Your task to perform on an android device: View the shopping cart on newegg.com. Add alienware area 51 to the cart on newegg.com Image 0: 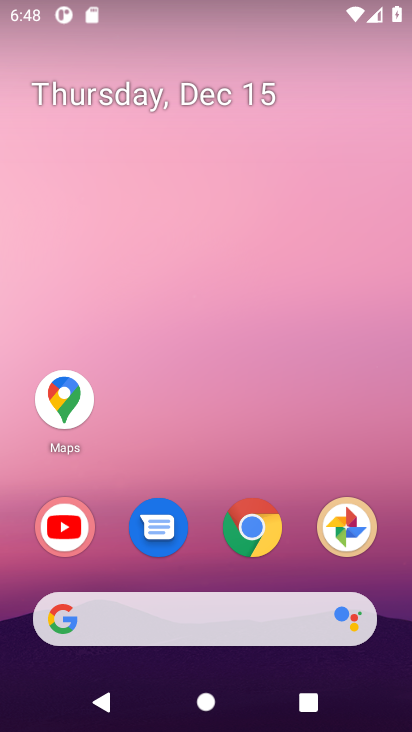
Step 0: click (233, 626)
Your task to perform on an android device: View the shopping cart on newegg.com. Add alienware area 51 to the cart on newegg.com Image 1: 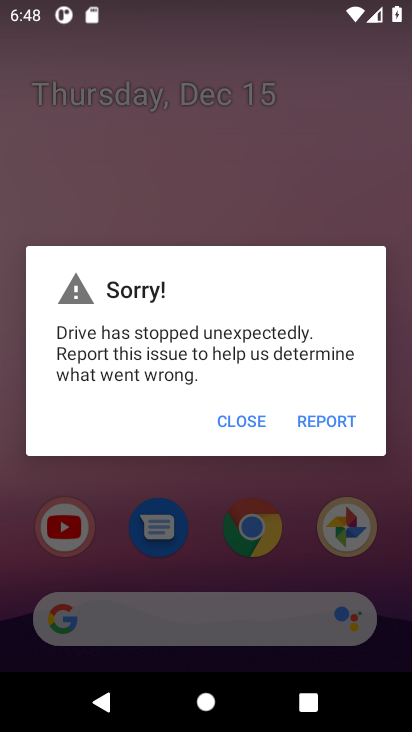
Step 1: click (266, 426)
Your task to perform on an android device: View the shopping cart on newegg.com. Add alienware area 51 to the cart on newegg.com Image 2: 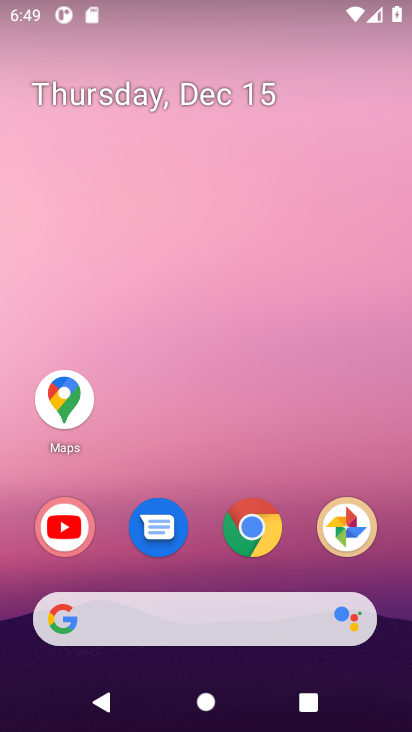
Step 2: click (212, 612)
Your task to perform on an android device: View the shopping cart on newegg.com. Add alienware area 51 to the cart on newegg.com Image 3: 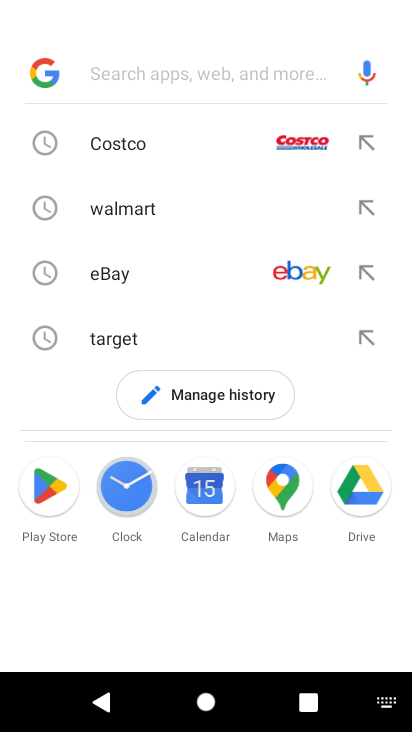
Step 3: type "newegg"
Your task to perform on an android device: View the shopping cart on newegg.com. Add alienware area 51 to the cart on newegg.com Image 4: 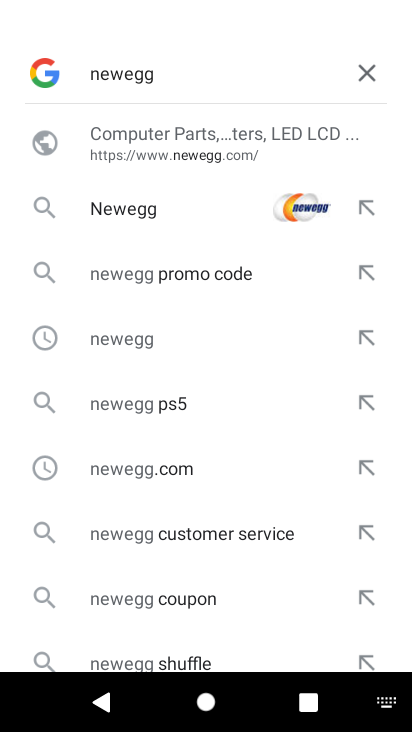
Step 4: click (206, 193)
Your task to perform on an android device: View the shopping cart on newegg.com. Add alienware area 51 to the cart on newegg.com Image 5: 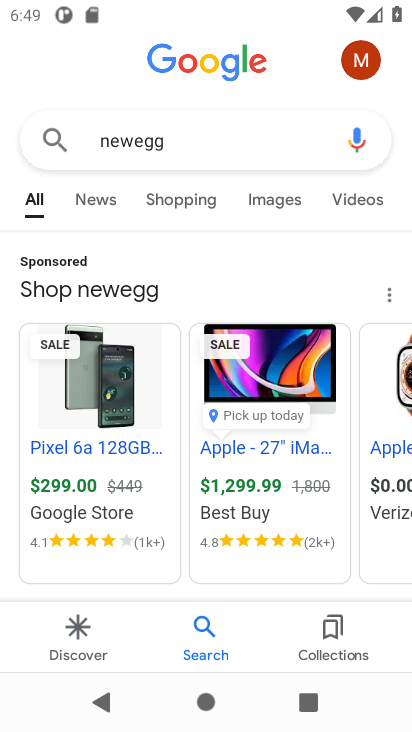
Step 5: drag from (111, 523) to (162, 255)
Your task to perform on an android device: View the shopping cart on newegg.com. Add alienware area 51 to the cart on newegg.com Image 6: 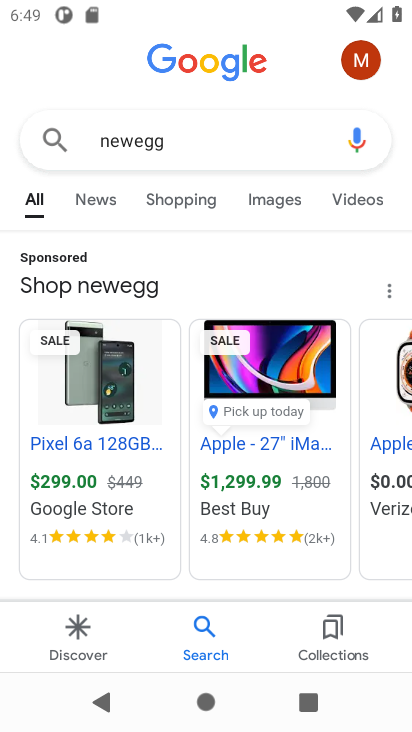
Step 6: drag from (186, 592) to (200, 158)
Your task to perform on an android device: View the shopping cart on newegg.com. Add alienware area 51 to the cart on newegg.com Image 7: 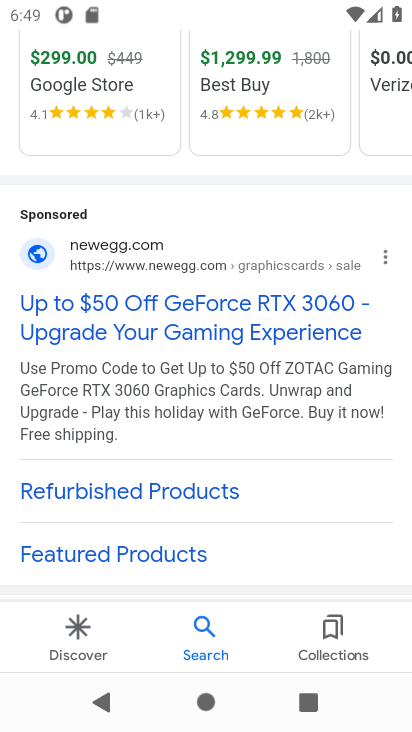
Step 7: click (96, 299)
Your task to perform on an android device: View the shopping cart on newegg.com. Add alienware area 51 to the cart on newegg.com Image 8: 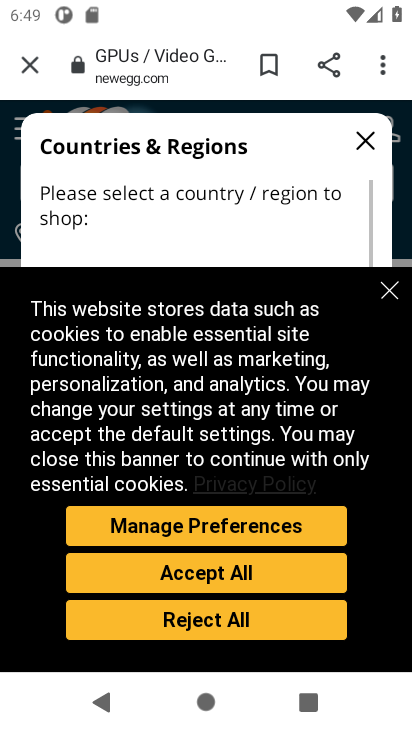
Step 8: click (397, 288)
Your task to perform on an android device: View the shopping cart on newegg.com. Add alienware area 51 to the cart on newegg.com Image 9: 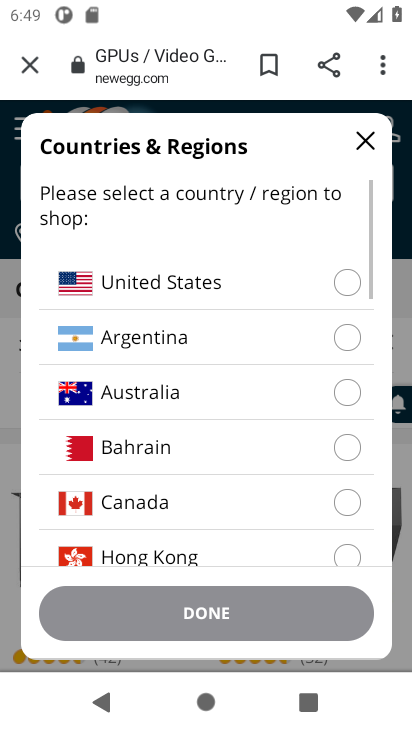
Step 9: click (359, 139)
Your task to perform on an android device: View the shopping cart on newegg.com. Add alienware area 51 to the cart on newegg.com Image 10: 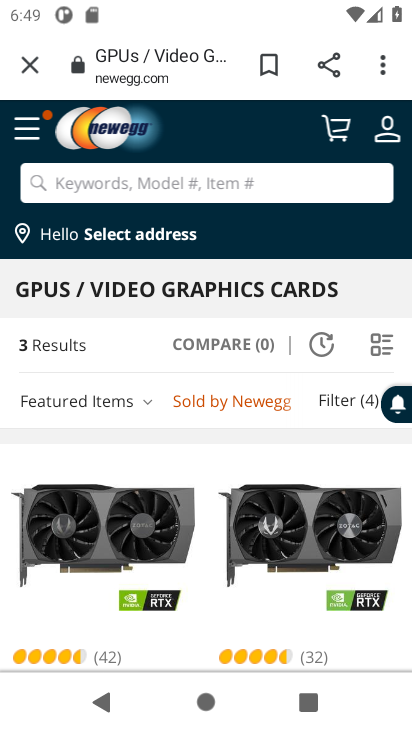
Step 10: click (197, 180)
Your task to perform on an android device: View the shopping cart on newegg.com. Add alienware area 51 to the cart on newegg.com Image 11: 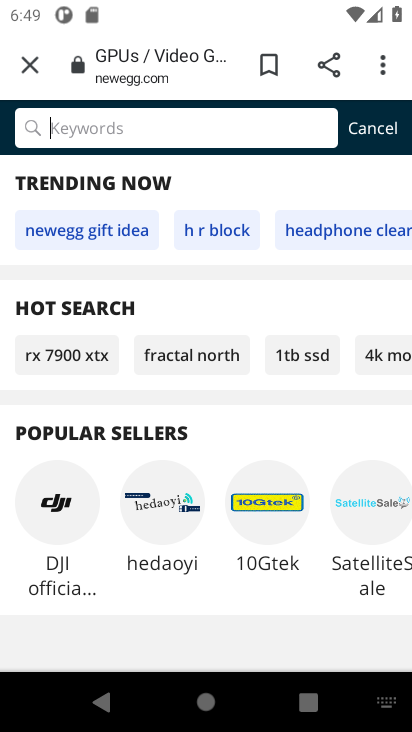
Step 11: type "alienware area 51"
Your task to perform on an android device: View the shopping cart on newegg.com. Add alienware area 51 to the cart on newegg.com Image 12: 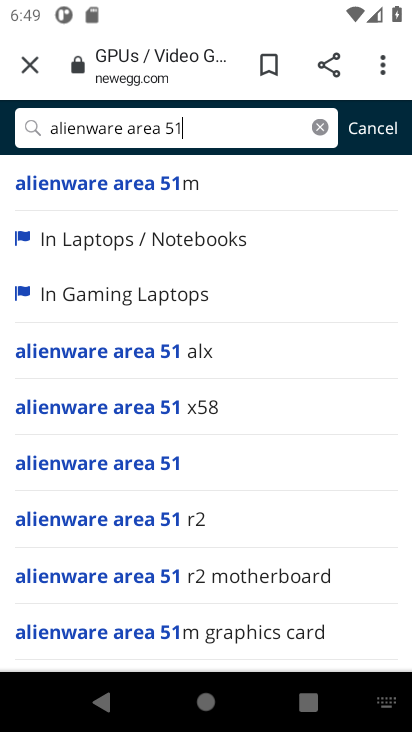
Step 12: click (196, 179)
Your task to perform on an android device: View the shopping cart on newegg.com. Add alienware area 51 to the cart on newegg.com Image 13: 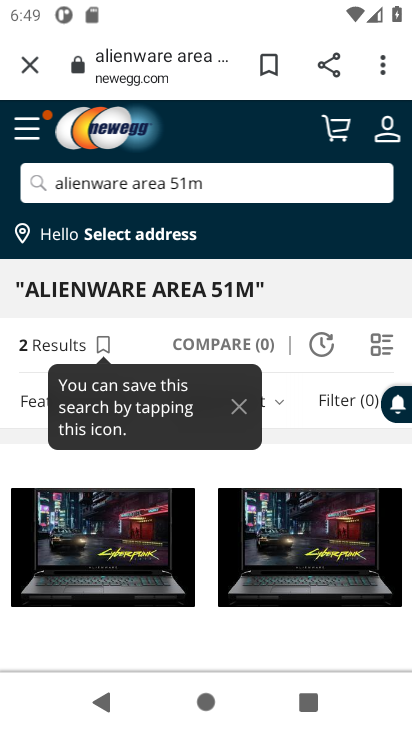
Step 13: click (231, 407)
Your task to perform on an android device: View the shopping cart on newegg.com. Add alienware area 51 to the cart on newegg.com Image 14: 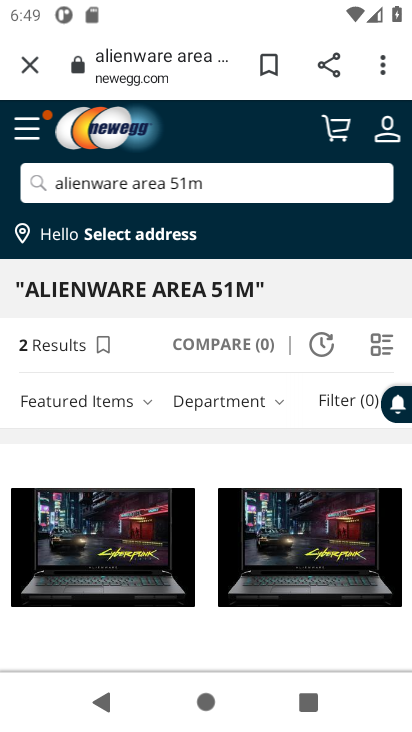
Step 14: drag from (201, 603) to (204, 335)
Your task to perform on an android device: View the shopping cart on newegg.com. Add alienware area 51 to the cart on newegg.com Image 15: 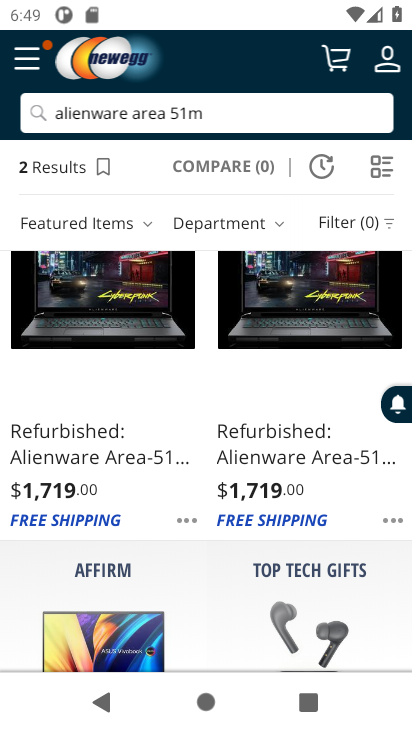
Step 15: click (112, 418)
Your task to perform on an android device: View the shopping cart on newegg.com. Add alienware area 51 to the cart on newegg.com Image 16: 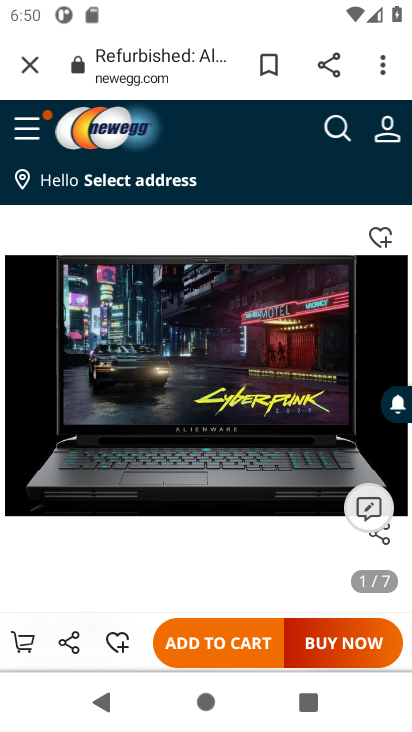
Step 16: click (216, 646)
Your task to perform on an android device: View the shopping cart on newegg.com. Add alienware area 51 to the cart on newegg.com Image 17: 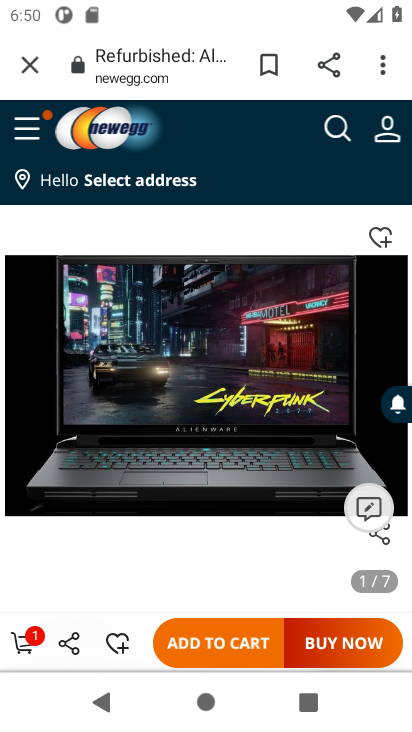
Step 17: task complete